Your task to perform on an android device: make emails show in primary in the gmail app Image 0: 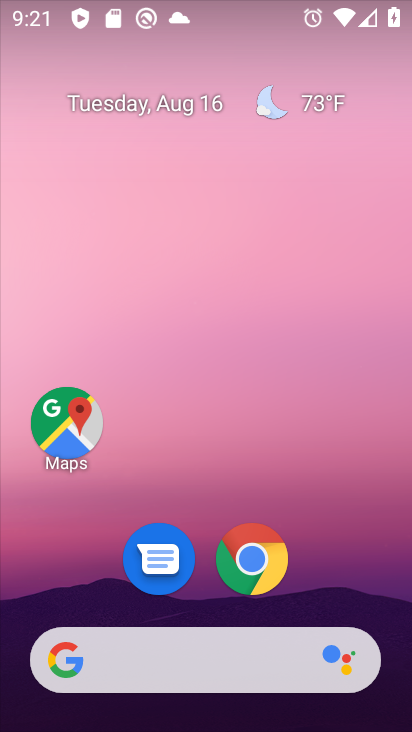
Step 0: drag from (165, 671) to (178, 114)
Your task to perform on an android device: make emails show in primary in the gmail app Image 1: 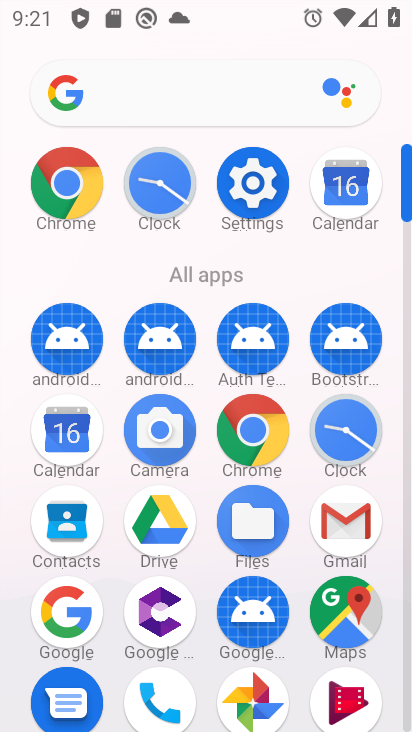
Step 1: click (347, 517)
Your task to perform on an android device: make emails show in primary in the gmail app Image 2: 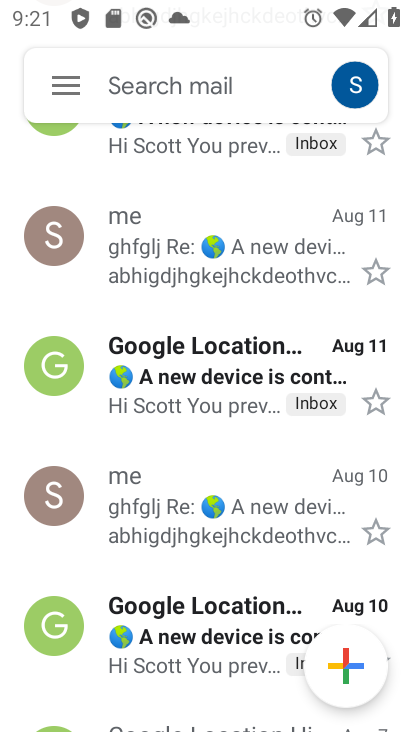
Step 2: click (68, 95)
Your task to perform on an android device: make emails show in primary in the gmail app Image 3: 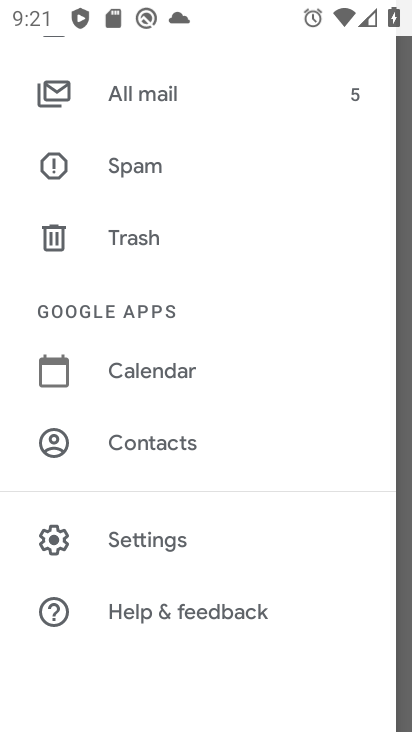
Step 3: drag from (228, 199) to (214, 564)
Your task to perform on an android device: make emails show in primary in the gmail app Image 4: 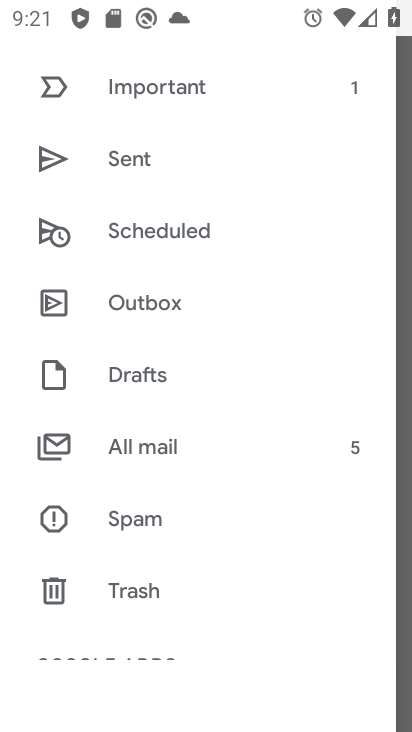
Step 4: drag from (230, 264) to (224, 557)
Your task to perform on an android device: make emails show in primary in the gmail app Image 5: 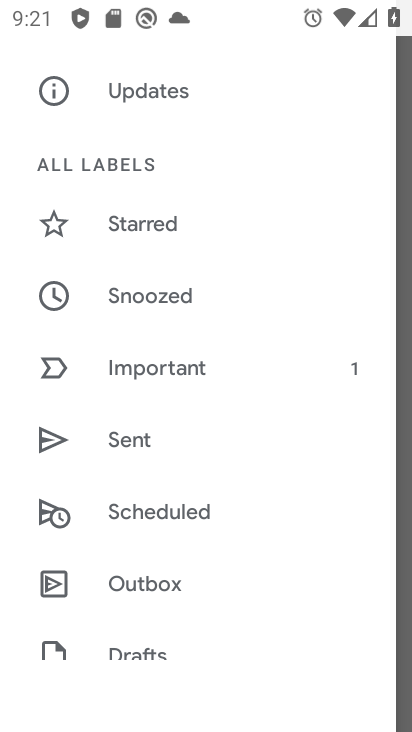
Step 5: drag from (237, 269) to (228, 521)
Your task to perform on an android device: make emails show in primary in the gmail app Image 6: 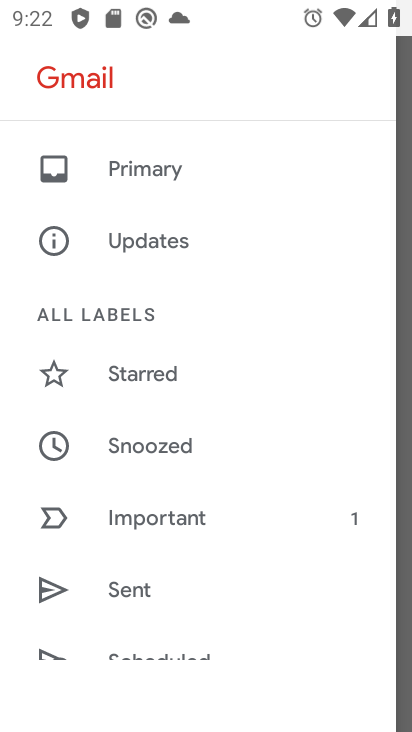
Step 6: click (161, 173)
Your task to perform on an android device: make emails show in primary in the gmail app Image 7: 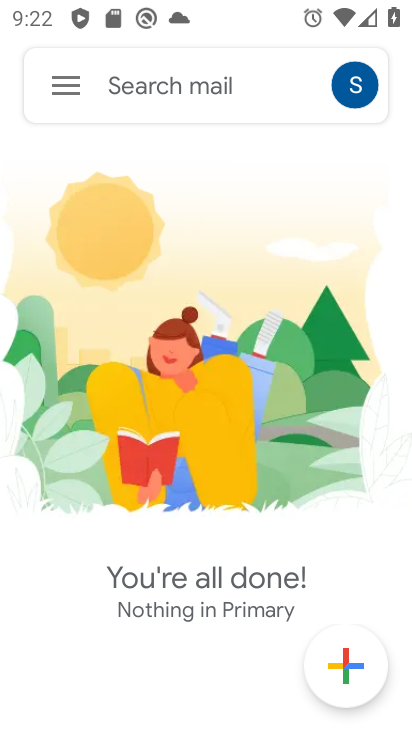
Step 7: task complete